Your task to perform on an android device: Open location settings Image 0: 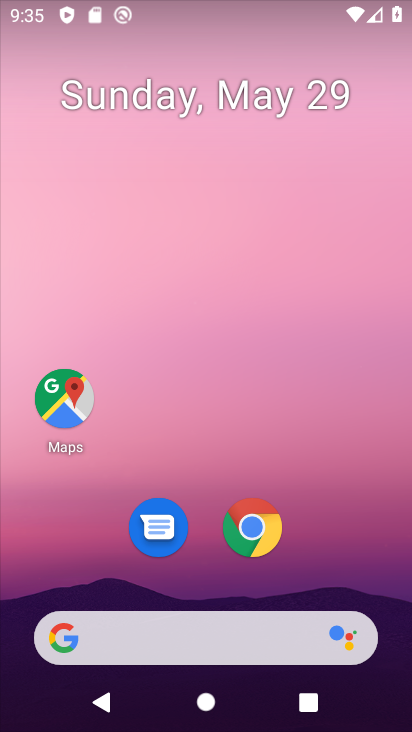
Step 0: drag from (340, 504) to (332, 0)
Your task to perform on an android device: Open location settings Image 1: 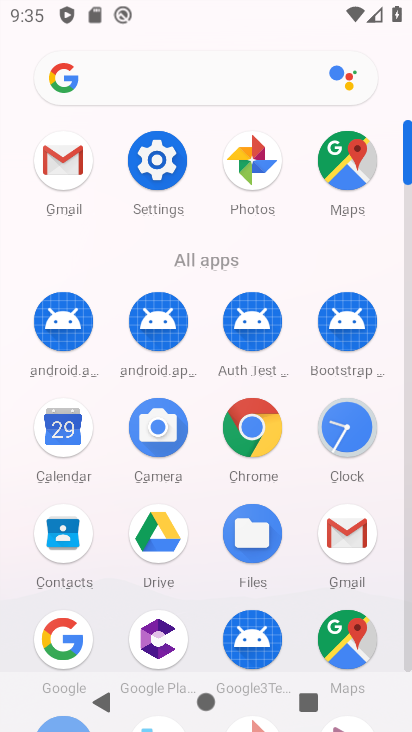
Step 1: click (169, 155)
Your task to perform on an android device: Open location settings Image 2: 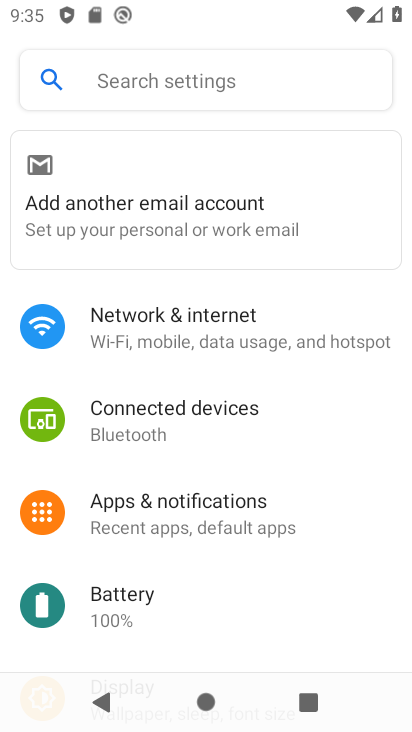
Step 2: drag from (214, 536) to (253, 67)
Your task to perform on an android device: Open location settings Image 3: 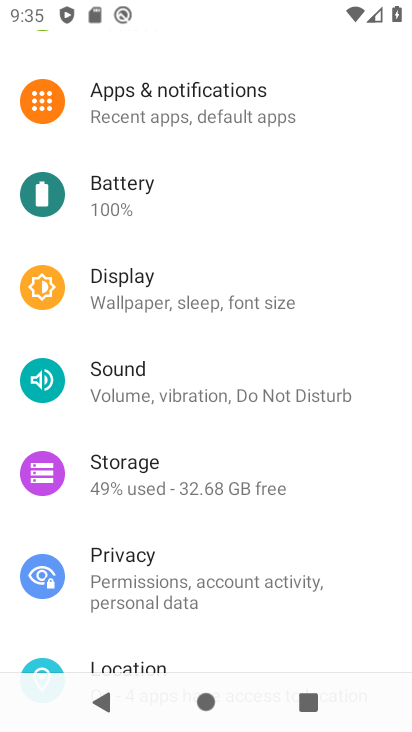
Step 3: drag from (251, 511) to (247, 67)
Your task to perform on an android device: Open location settings Image 4: 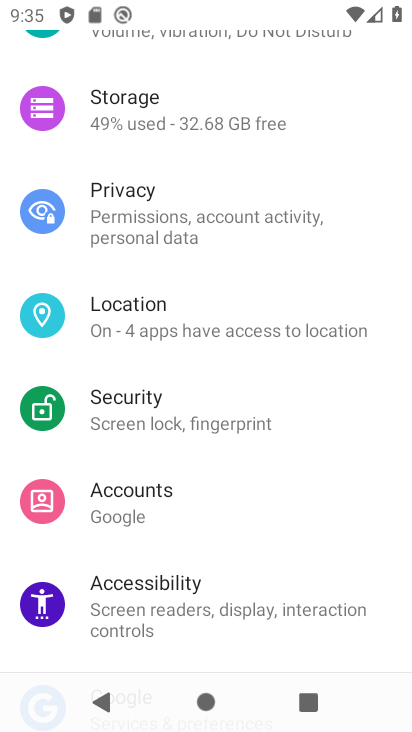
Step 4: click (161, 333)
Your task to perform on an android device: Open location settings Image 5: 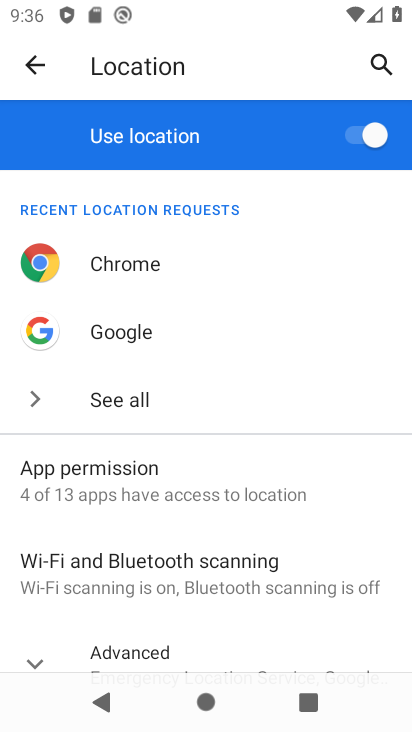
Step 5: task complete